Your task to perform on an android device: Check the news Image 0: 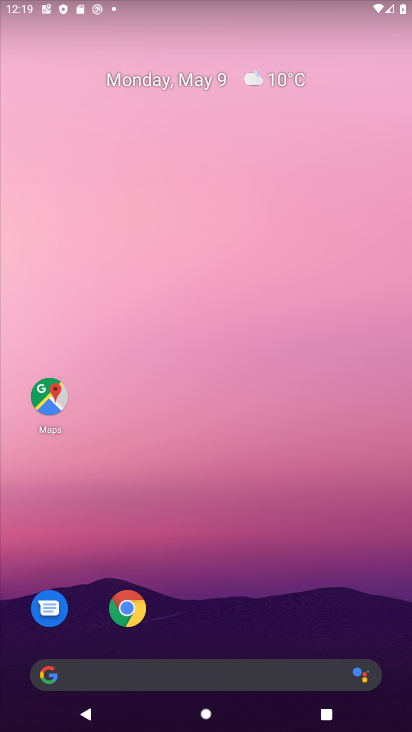
Step 0: drag from (283, 631) to (200, 139)
Your task to perform on an android device: Check the news Image 1: 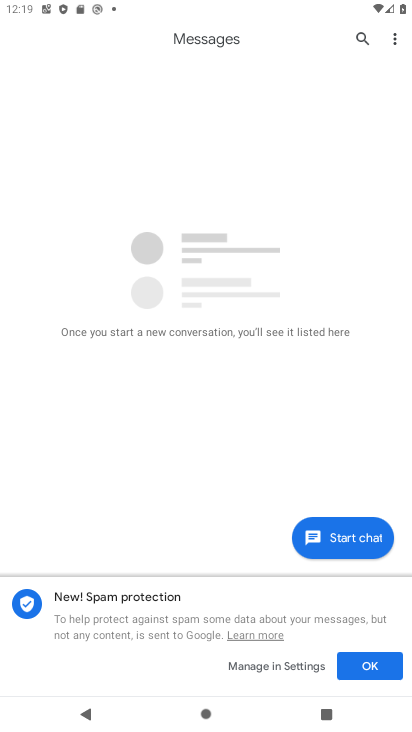
Step 1: press home button
Your task to perform on an android device: Check the news Image 2: 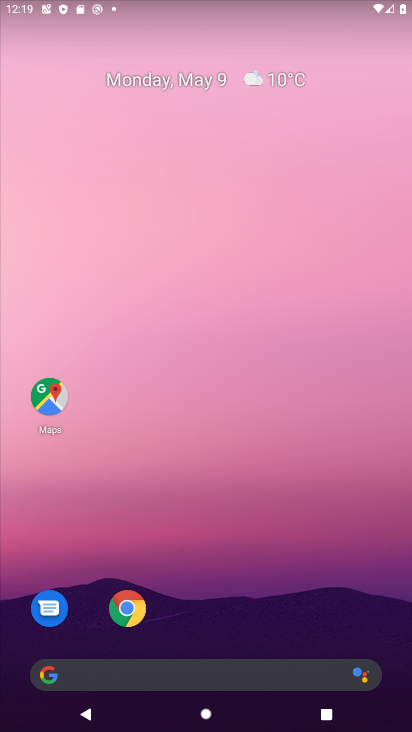
Step 2: click (131, 620)
Your task to perform on an android device: Check the news Image 3: 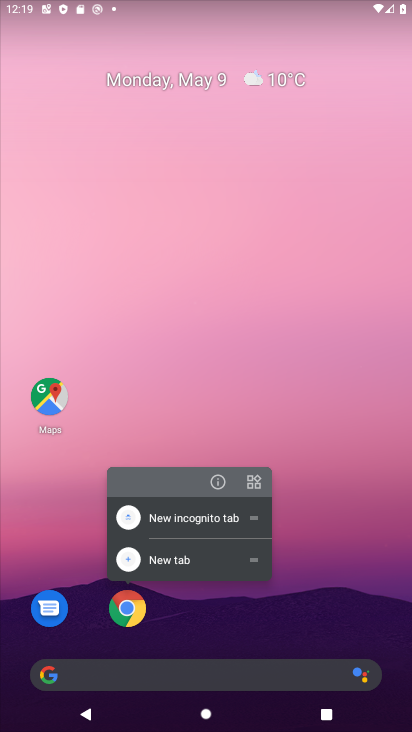
Step 3: click (112, 607)
Your task to perform on an android device: Check the news Image 4: 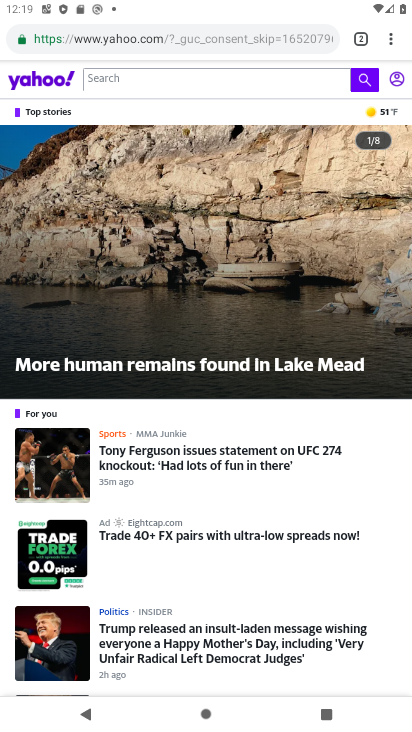
Step 4: click (254, 36)
Your task to perform on an android device: Check the news Image 5: 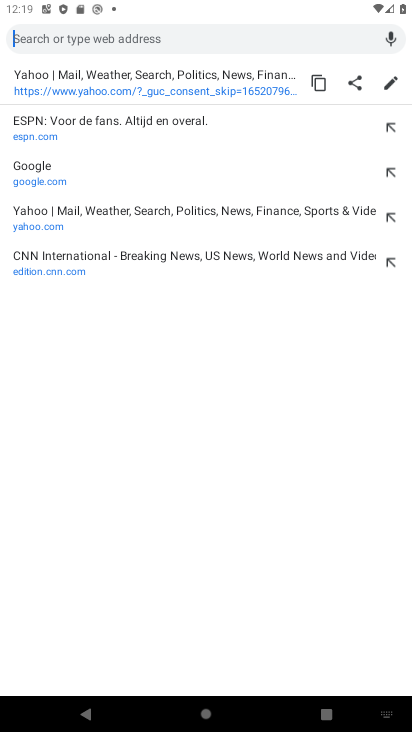
Step 5: click (158, 189)
Your task to perform on an android device: Check the news Image 6: 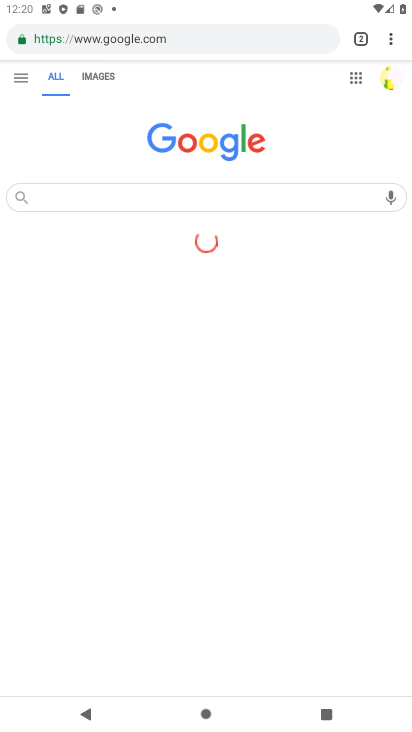
Step 6: click (363, 46)
Your task to perform on an android device: Check the news Image 7: 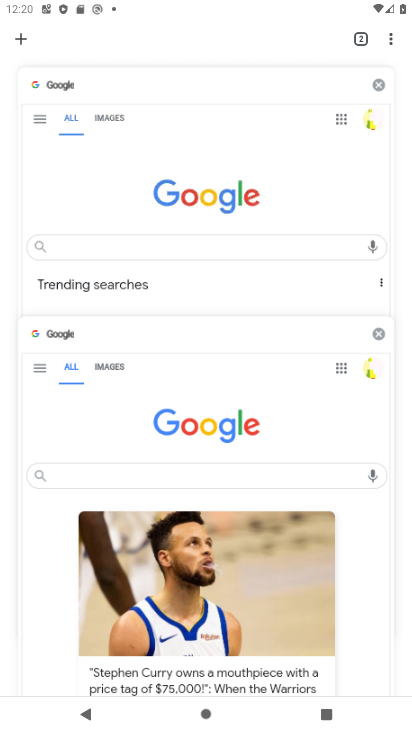
Step 7: click (28, 38)
Your task to perform on an android device: Check the news Image 8: 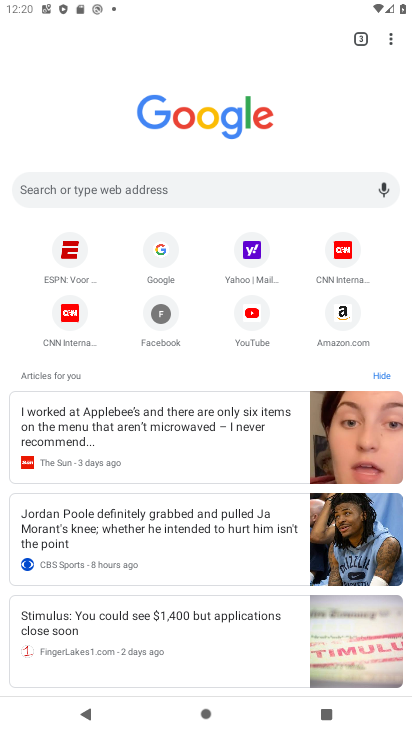
Step 8: task complete